Your task to perform on an android device: Open Reddit.com Image 0: 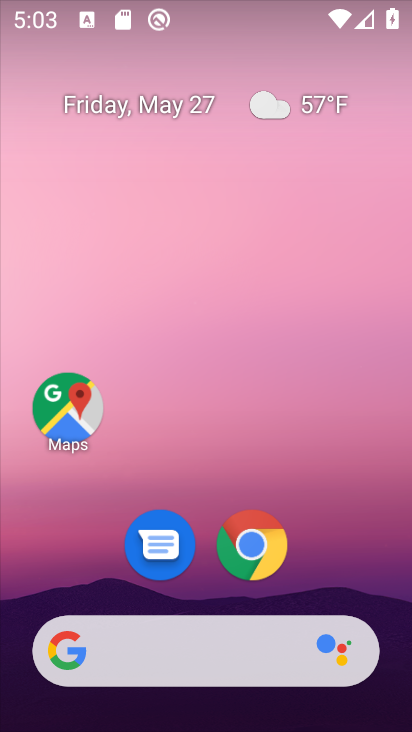
Step 0: click (255, 534)
Your task to perform on an android device: Open Reddit.com Image 1: 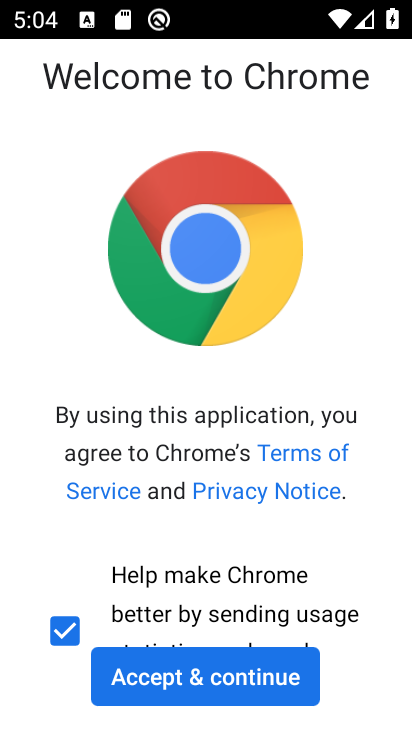
Step 1: click (241, 658)
Your task to perform on an android device: Open Reddit.com Image 2: 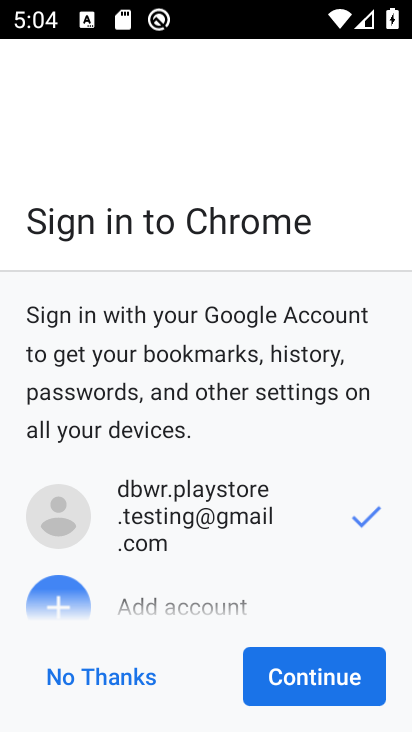
Step 2: click (272, 684)
Your task to perform on an android device: Open Reddit.com Image 3: 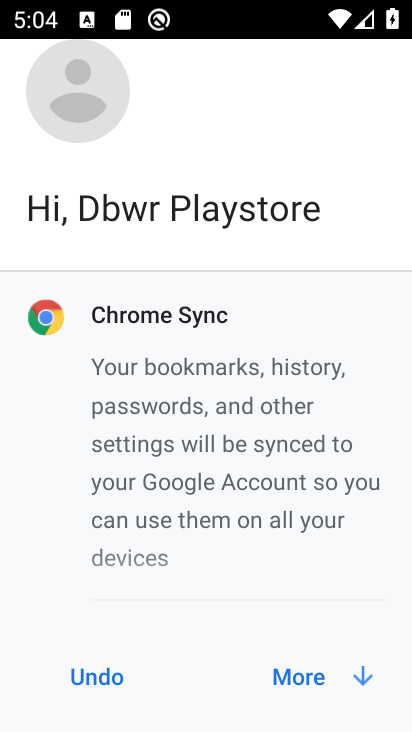
Step 3: click (300, 670)
Your task to perform on an android device: Open Reddit.com Image 4: 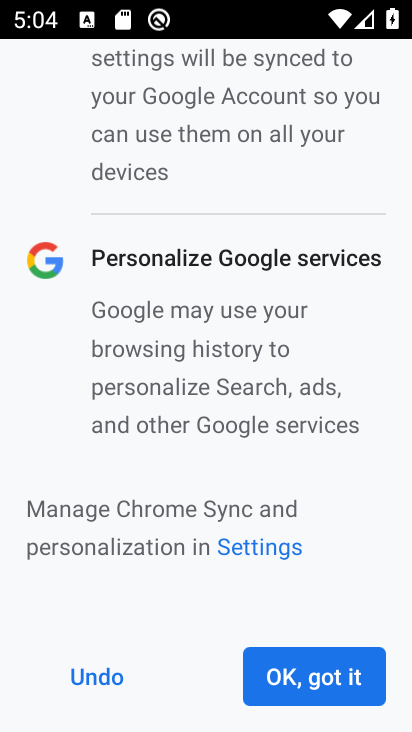
Step 4: click (300, 670)
Your task to perform on an android device: Open Reddit.com Image 5: 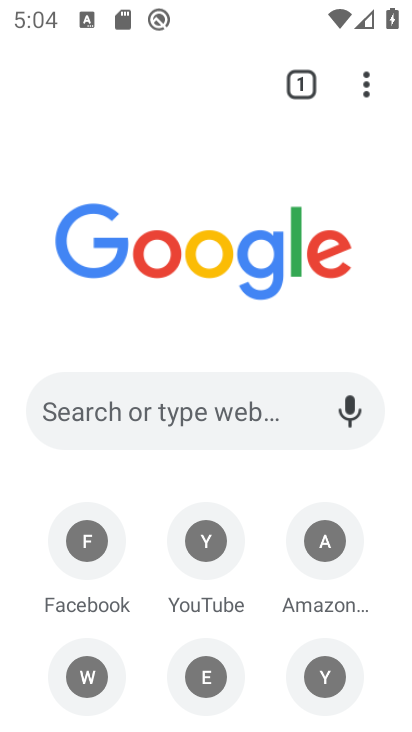
Step 5: click (149, 423)
Your task to perform on an android device: Open Reddit.com Image 6: 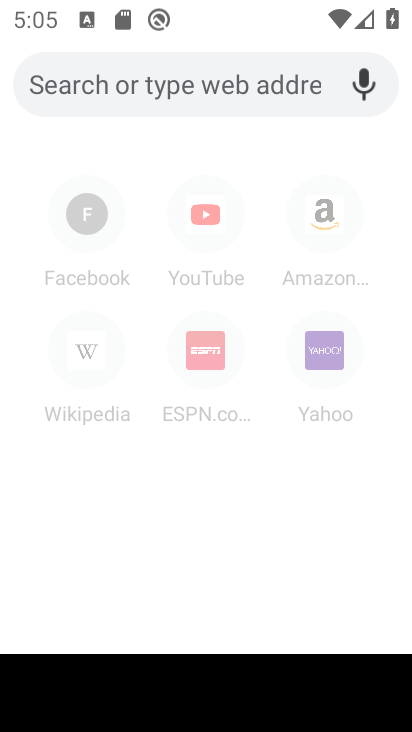
Step 6: type "Reddit.com"
Your task to perform on an android device: Open Reddit.com Image 7: 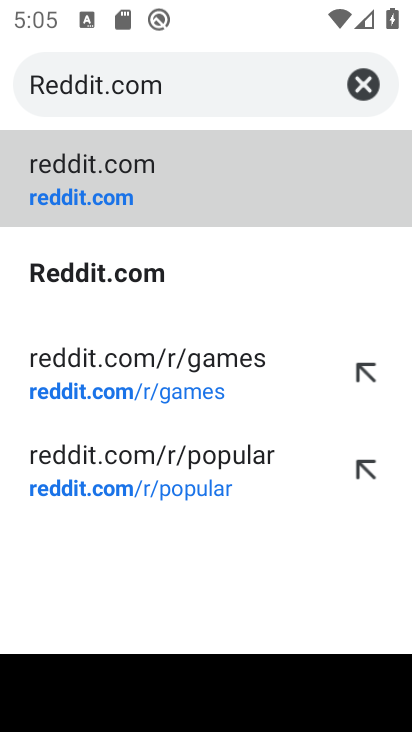
Step 7: click (74, 272)
Your task to perform on an android device: Open Reddit.com Image 8: 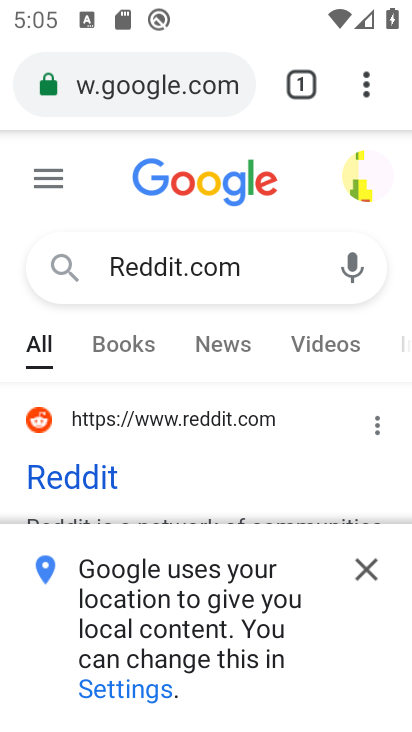
Step 8: task complete